Your task to perform on an android device: check android version Image 0: 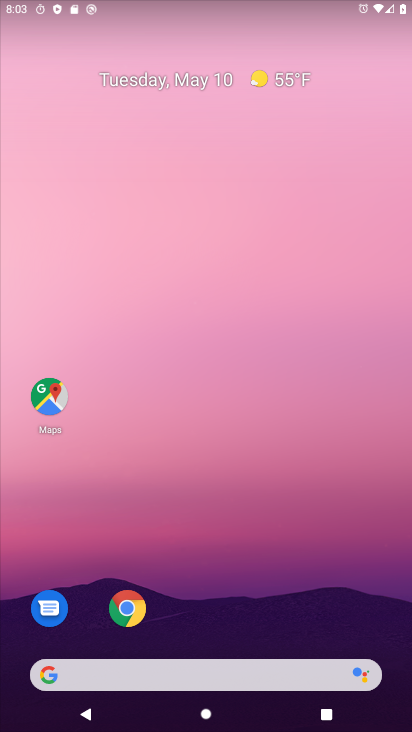
Step 0: drag from (248, 613) to (205, 87)
Your task to perform on an android device: check android version Image 1: 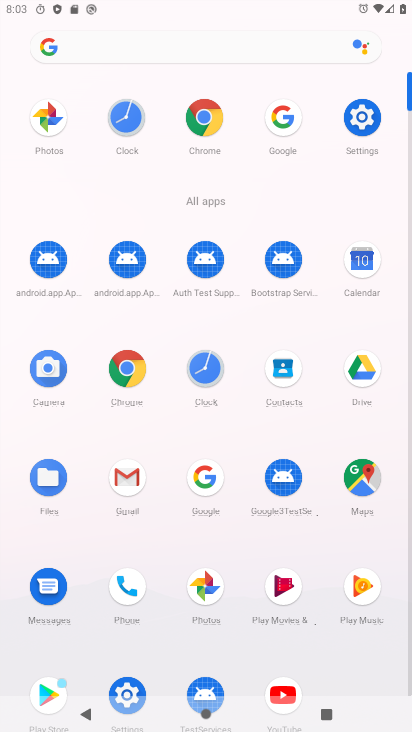
Step 1: click (361, 119)
Your task to perform on an android device: check android version Image 2: 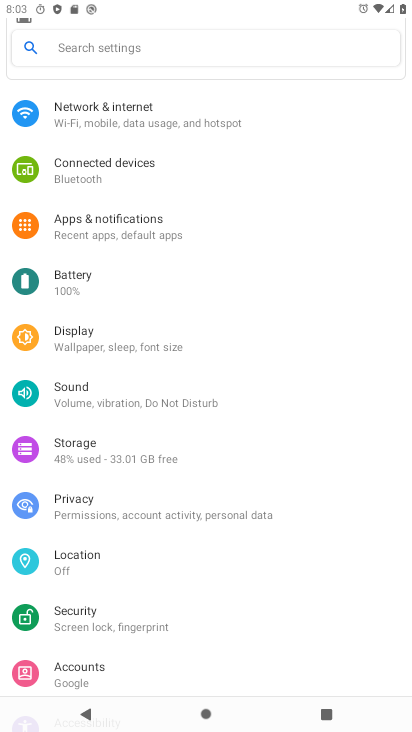
Step 2: drag from (138, 434) to (179, 335)
Your task to perform on an android device: check android version Image 3: 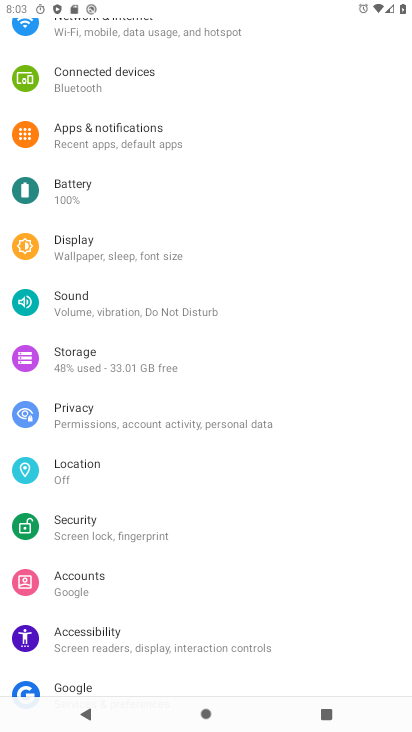
Step 3: drag from (122, 430) to (161, 350)
Your task to perform on an android device: check android version Image 4: 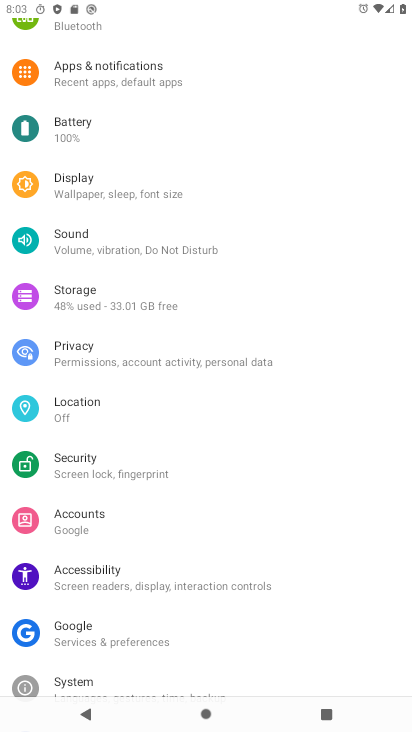
Step 4: drag from (197, 631) to (273, 455)
Your task to perform on an android device: check android version Image 5: 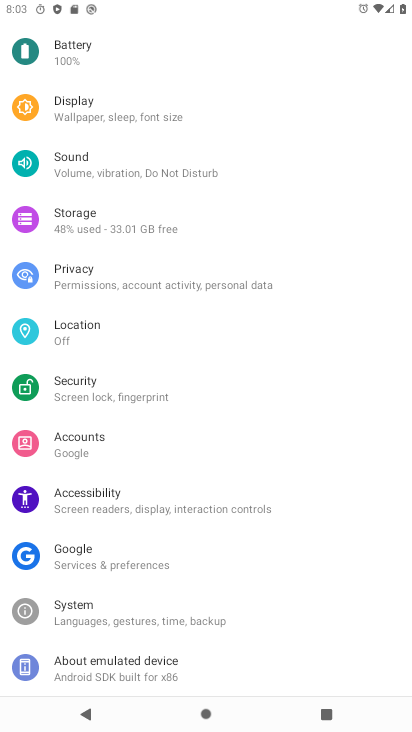
Step 5: click (116, 661)
Your task to perform on an android device: check android version Image 6: 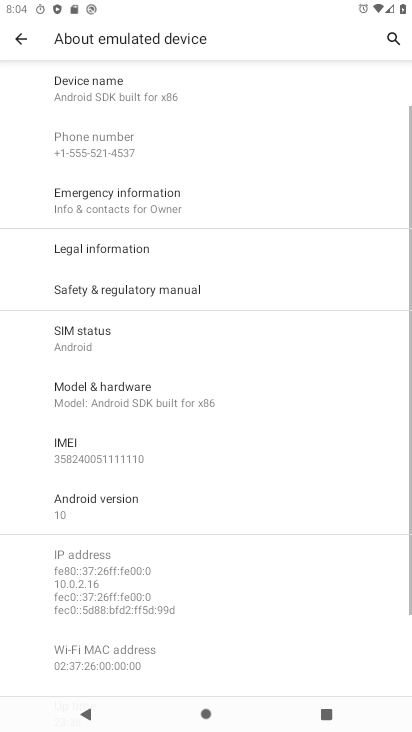
Step 6: click (101, 499)
Your task to perform on an android device: check android version Image 7: 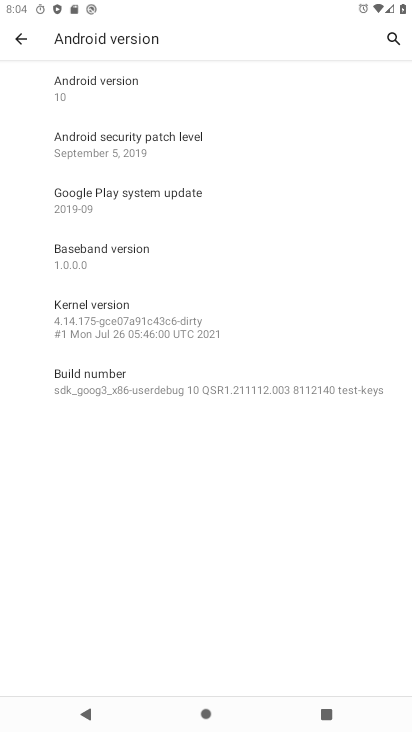
Step 7: task complete